Your task to perform on an android device: choose inbox layout in the gmail app Image 0: 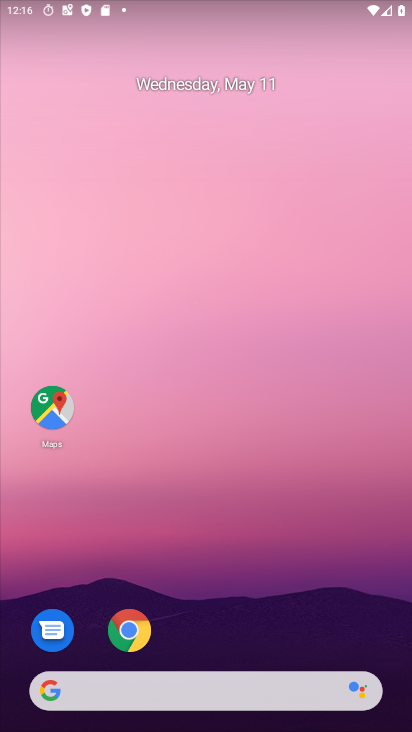
Step 0: drag from (285, 291) to (272, 12)
Your task to perform on an android device: choose inbox layout in the gmail app Image 1: 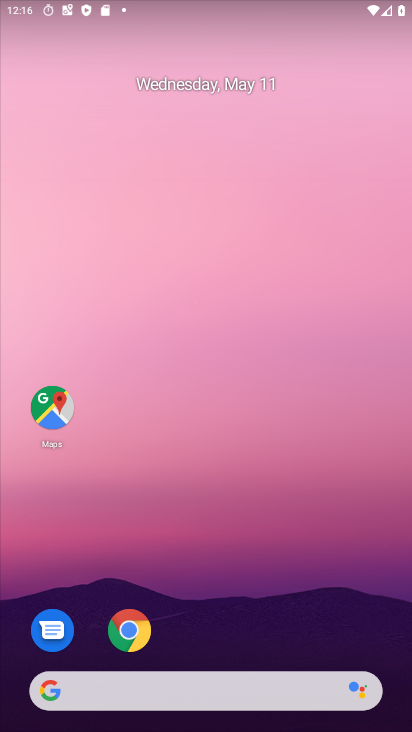
Step 1: drag from (261, 331) to (262, 38)
Your task to perform on an android device: choose inbox layout in the gmail app Image 2: 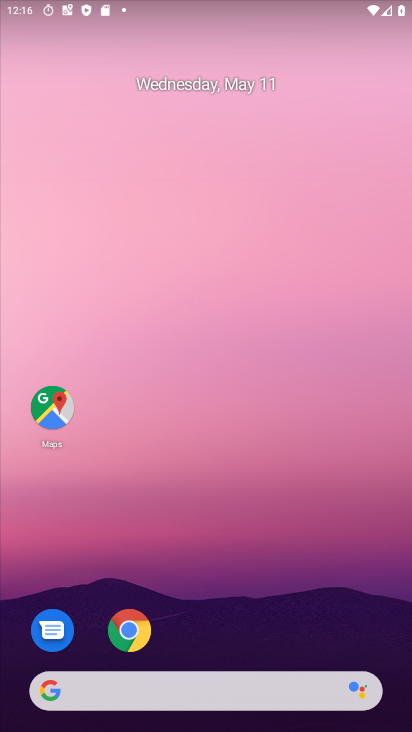
Step 2: drag from (242, 245) to (262, 101)
Your task to perform on an android device: choose inbox layout in the gmail app Image 3: 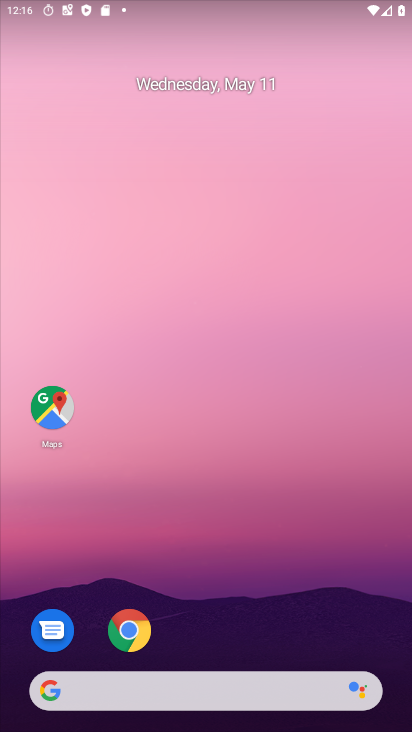
Step 3: drag from (230, 619) to (258, 16)
Your task to perform on an android device: choose inbox layout in the gmail app Image 4: 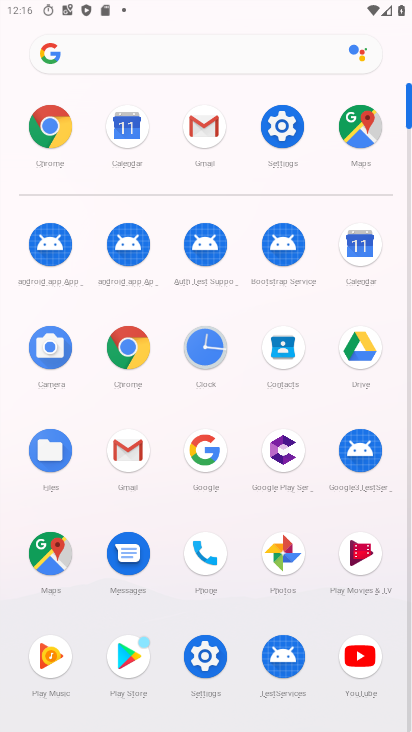
Step 4: click (138, 443)
Your task to perform on an android device: choose inbox layout in the gmail app Image 5: 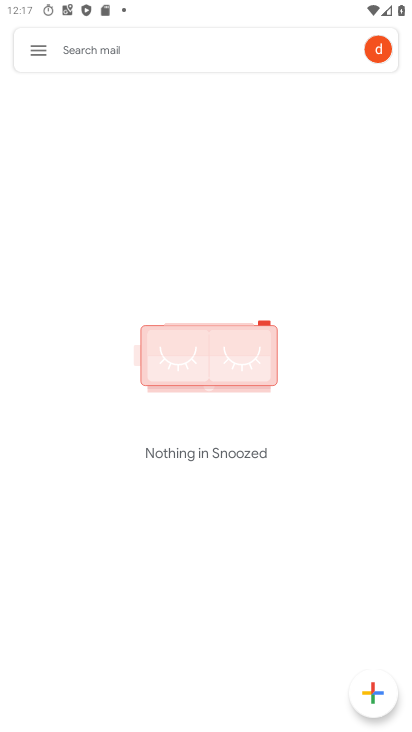
Step 5: click (34, 49)
Your task to perform on an android device: choose inbox layout in the gmail app Image 6: 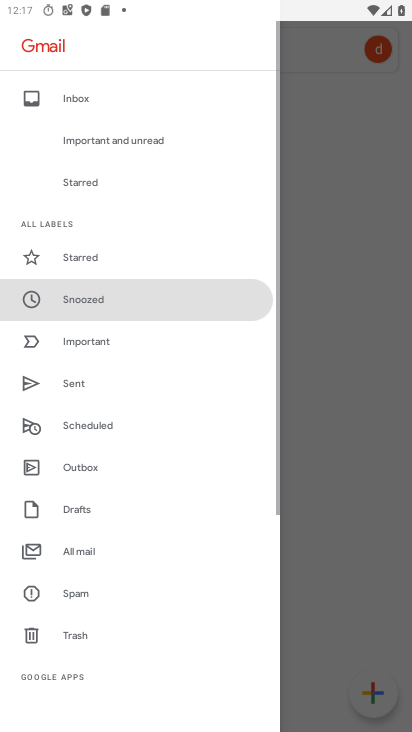
Step 6: drag from (91, 663) to (153, 136)
Your task to perform on an android device: choose inbox layout in the gmail app Image 7: 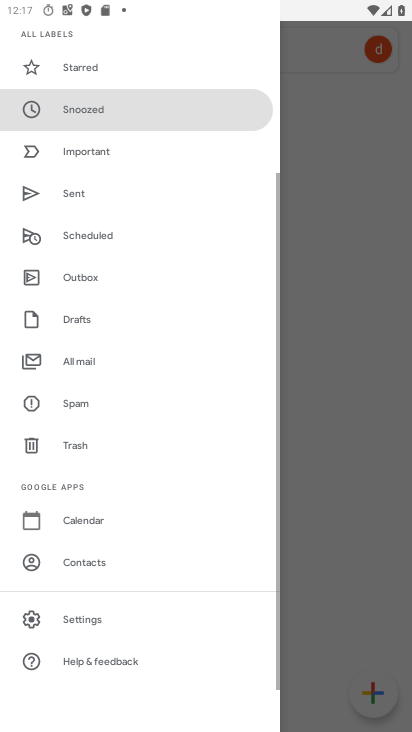
Step 7: click (93, 607)
Your task to perform on an android device: choose inbox layout in the gmail app Image 8: 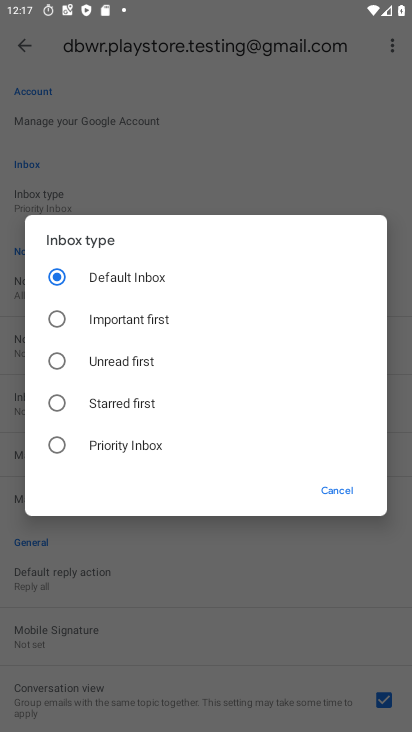
Step 8: task complete